Your task to perform on an android device: install app "Messenger Lite" Image 0: 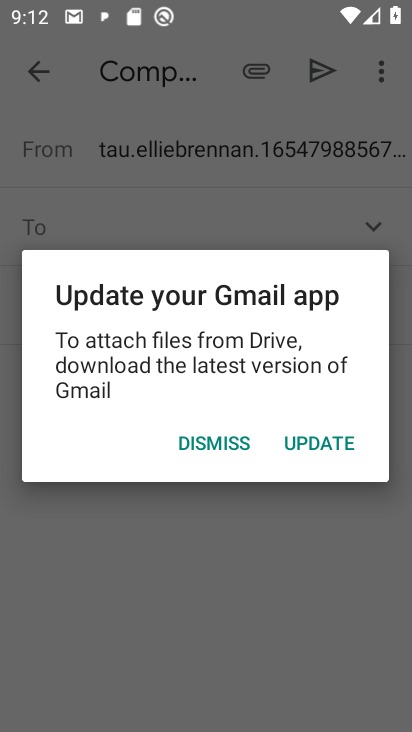
Step 0: press home button
Your task to perform on an android device: install app "Messenger Lite" Image 1: 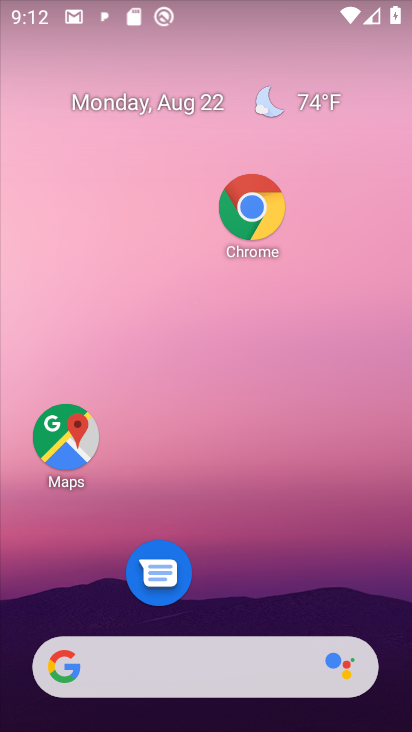
Step 1: drag from (210, 603) to (287, 11)
Your task to perform on an android device: install app "Messenger Lite" Image 2: 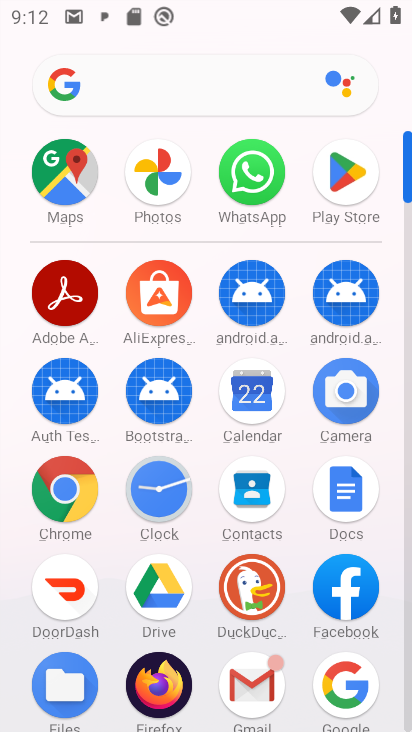
Step 2: click (348, 182)
Your task to perform on an android device: install app "Messenger Lite" Image 3: 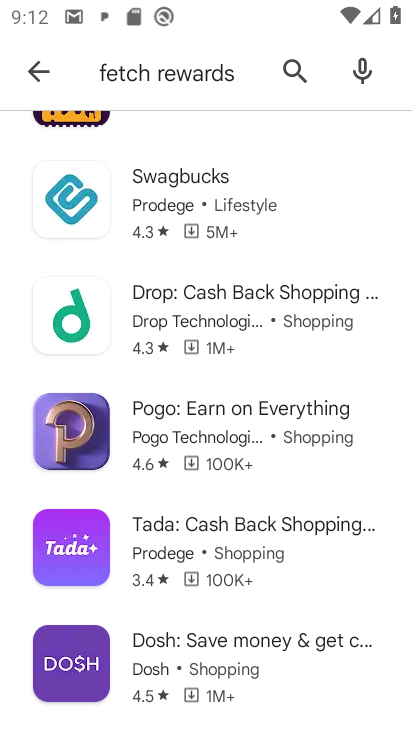
Step 3: click (165, 61)
Your task to perform on an android device: install app "Messenger Lite" Image 4: 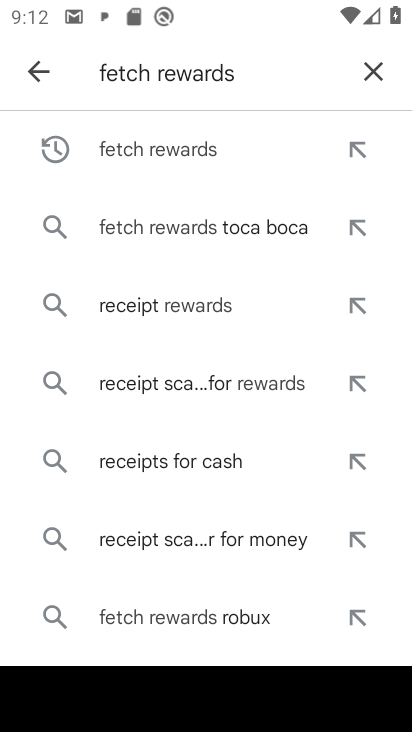
Step 4: click (374, 79)
Your task to perform on an android device: install app "Messenger Lite" Image 5: 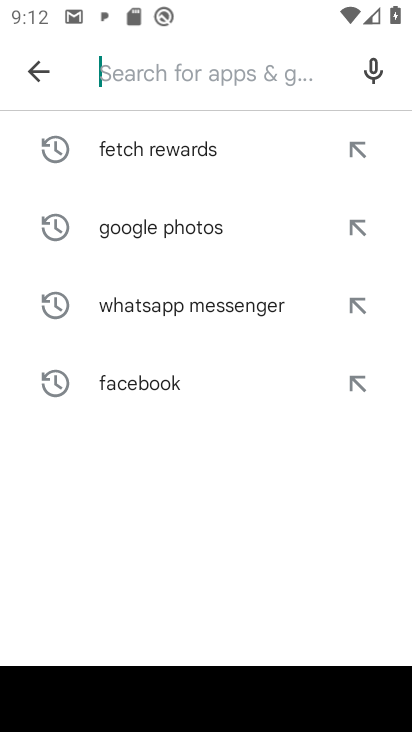
Step 5: type "messenger lite"
Your task to perform on an android device: install app "Messenger Lite" Image 6: 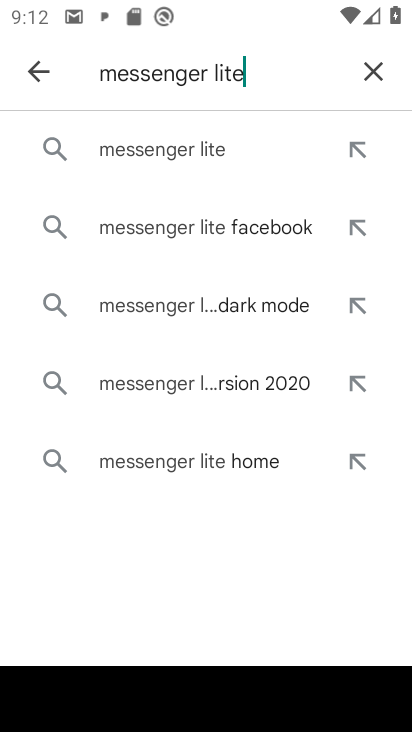
Step 6: click (155, 162)
Your task to perform on an android device: install app "Messenger Lite" Image 7: 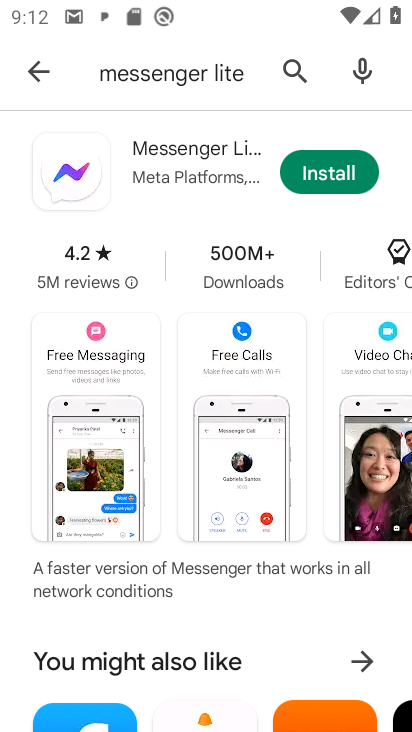
Step 7: click (322, 175)
Your task to perform on an android device: install app "Messenger Lite" Image 8: 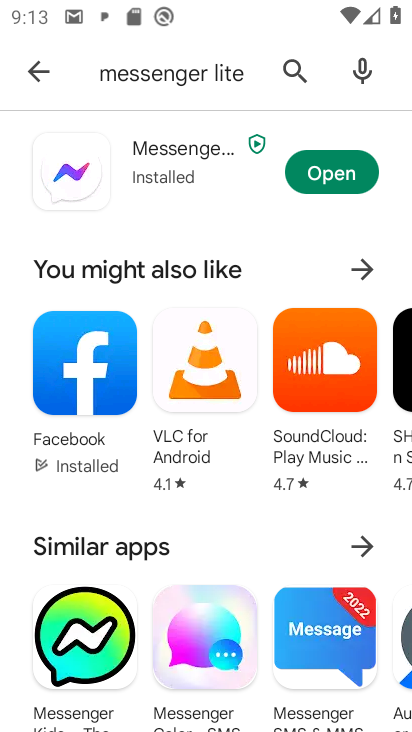
Step 8: task complete